Your task to perform on an android device: Open Chrome and go to settings Image 0: 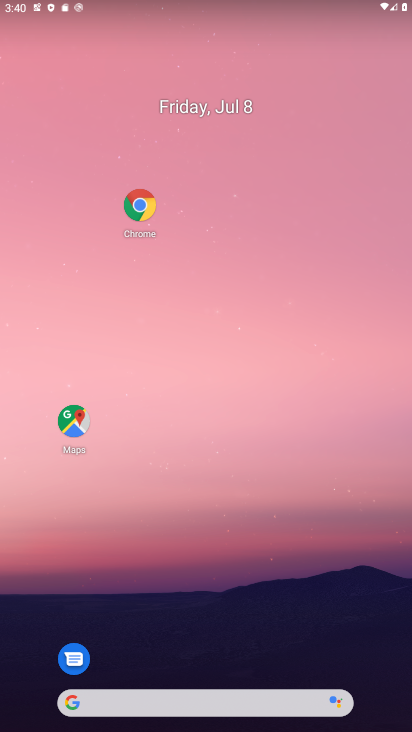
Step 0: click (142, 230)
Your task to perform on an android device: Open Chrome and go to settings Image 1: 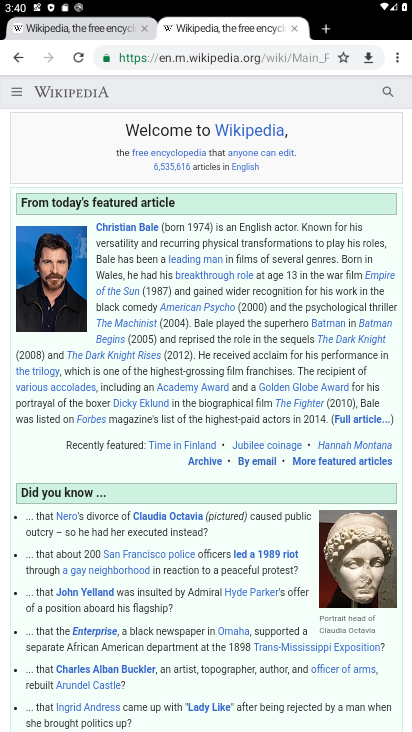
Step 1: click (391, 59)
Your task to perform on an android device: Open Chrome and go to settings Image 2: 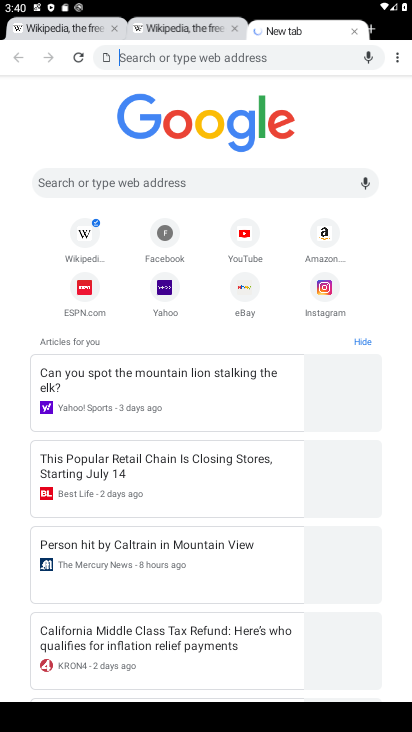
Step 2: click (391, 59)
Your task to perform on an android device: Open Chrome and go to settings Image 3: 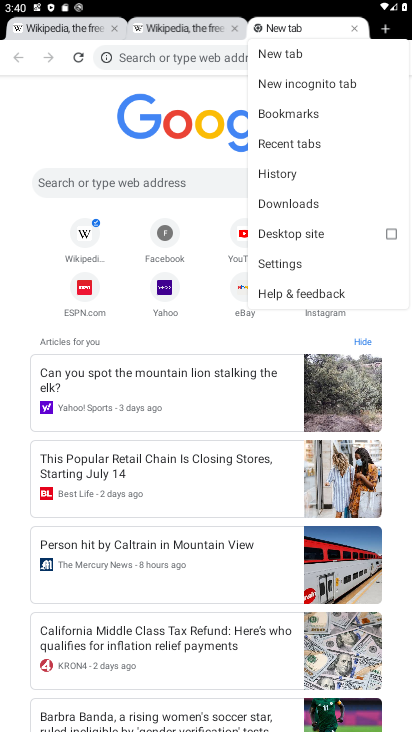
Step 3: click (266, 270)
Your task to perform on an android device: Open Chrome and go to settings Image 4: 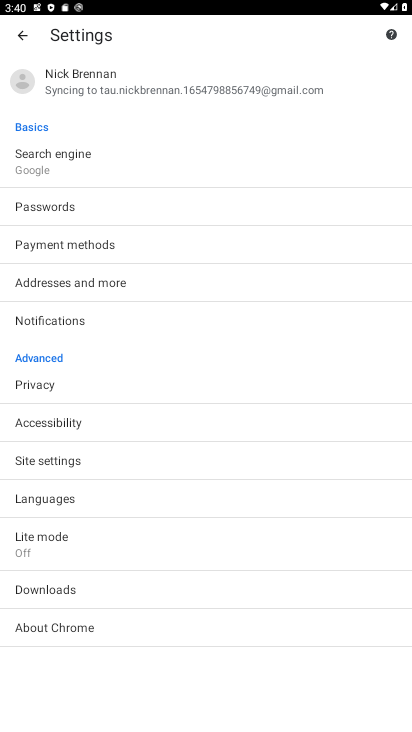
Step 4: task complete